Your task to perform on an android device: Open calendar and show me the first week of next month Image 0: 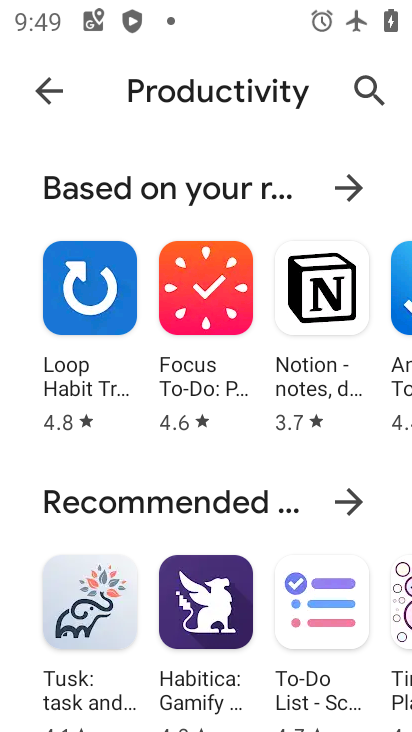
Step 0: press home button
Your task to perform on an android device: Open calendar and show me the first week of next month Image 1: 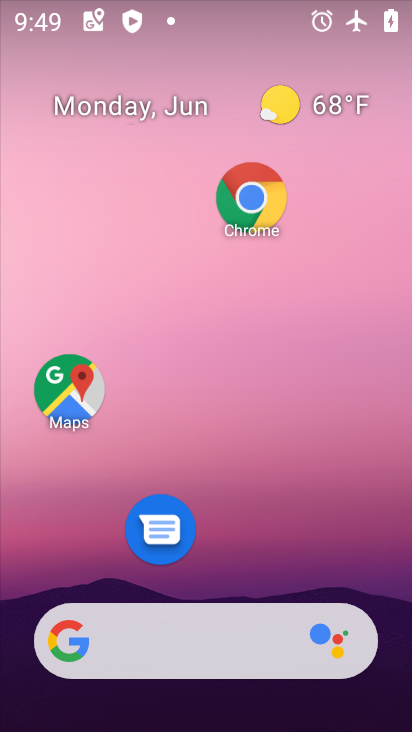
Step 1: drag from (214, 562) to (255, 205)
Your task to perform on an android device: Open calendar and show me the first week of next month Image 2: 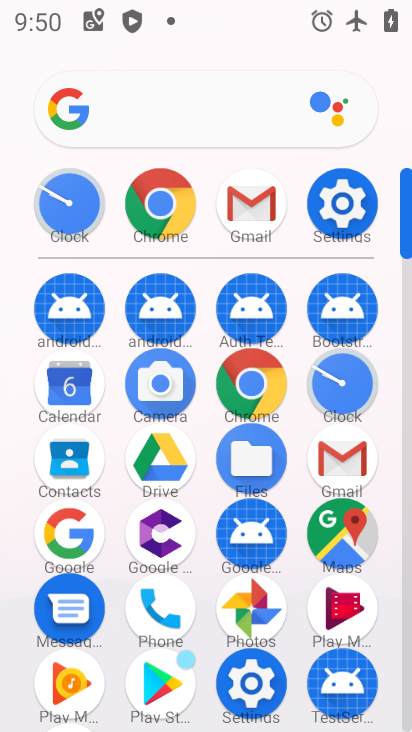
Step 2: click (73, 412)
Your task to perform on an android device: Open calendar and show me the first week of next month Image 3: 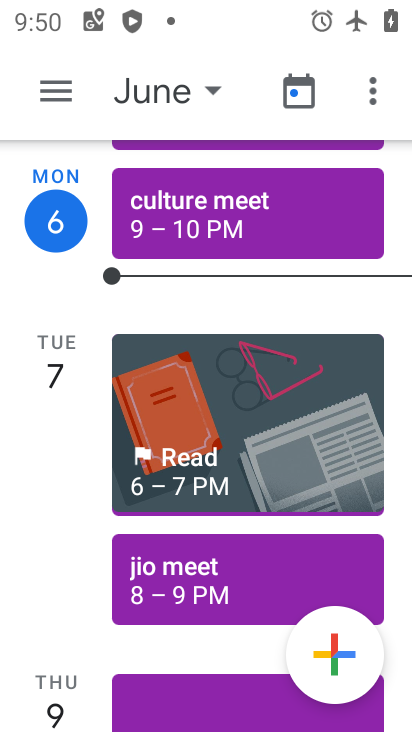
Step 3: click (206, 75)
Your task to perform on an android device: Open calendar and show me the first week of next month Image 4: 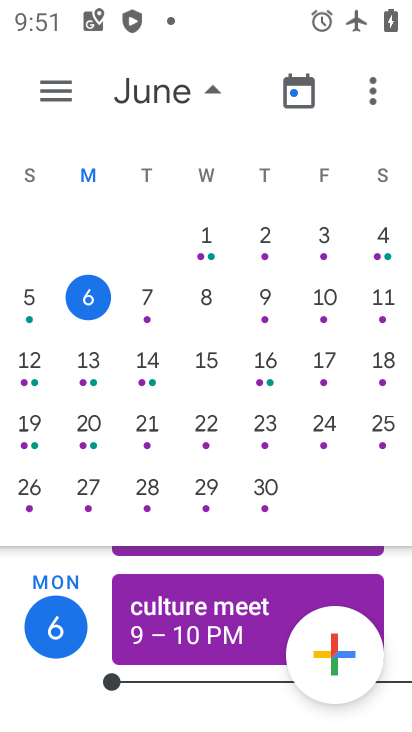
Step 4: drag from (298, 345) to (12, 345)
Your task to perform on an android device: Open calendar and show me the first week of next month Image 5: 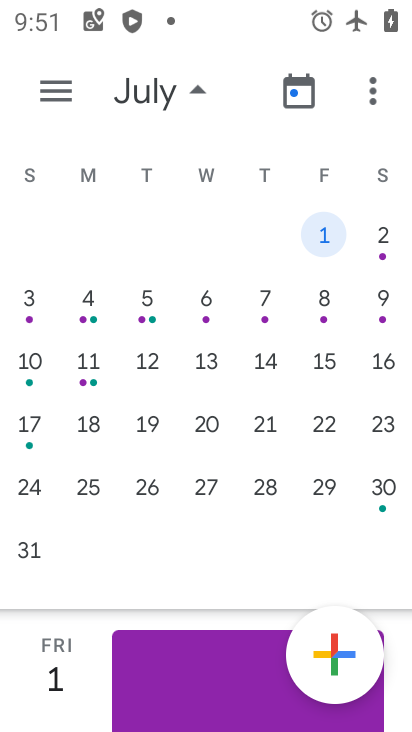
Step 5: click (311, 234)
Your task to perform on an android device: Open calendar and show me the first week of next month Image 6: 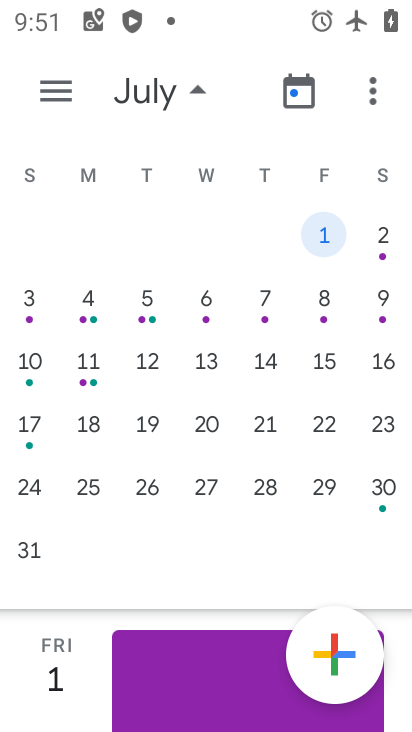
Step 6: task complete